Your task to perform on an android device: Turn on the flashlight Image 0: 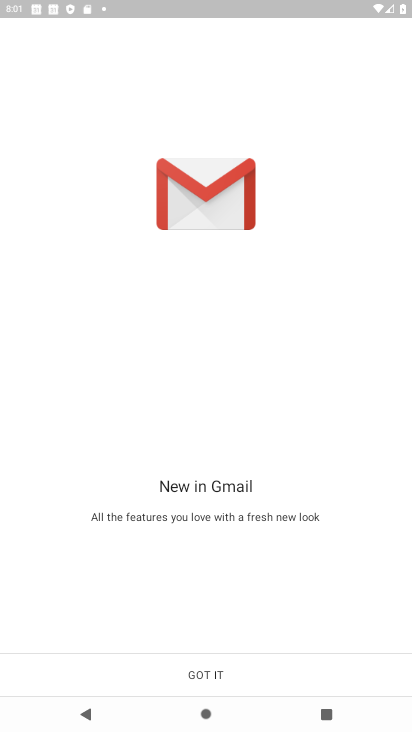
Step 0: click (210, 670)
Your task to perform on an android device: Turn on the flashlight Image 1: 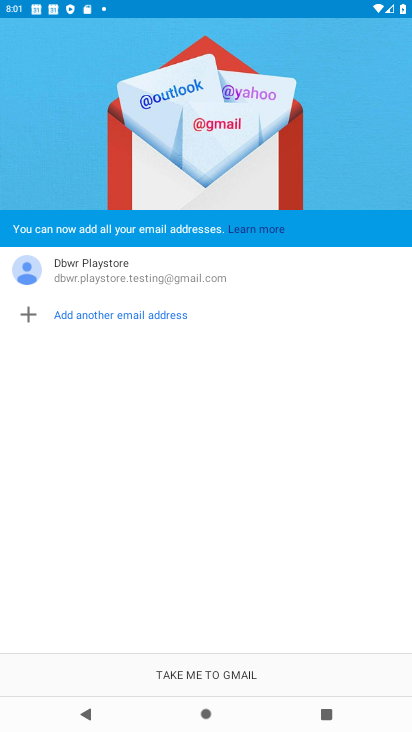
Step 1: click (210, 670)
Your task to perform on an android device: Turn on the flashlight Image 2: 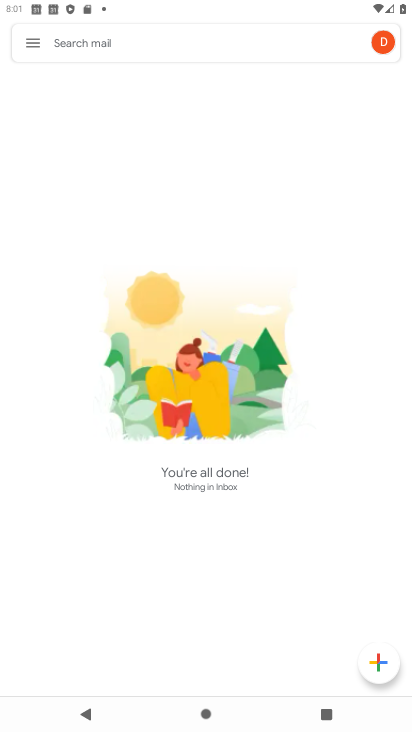
Step 2: task complete